Your task to perform on an android device: What's on my calendar tomorrow? Image 0: 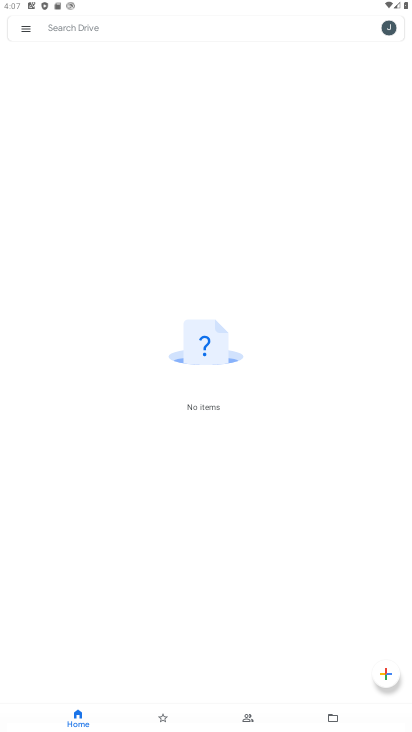
Step 0: press home button
Your task to perform on an android device: What's on my calendar tomorrow? Image 1: 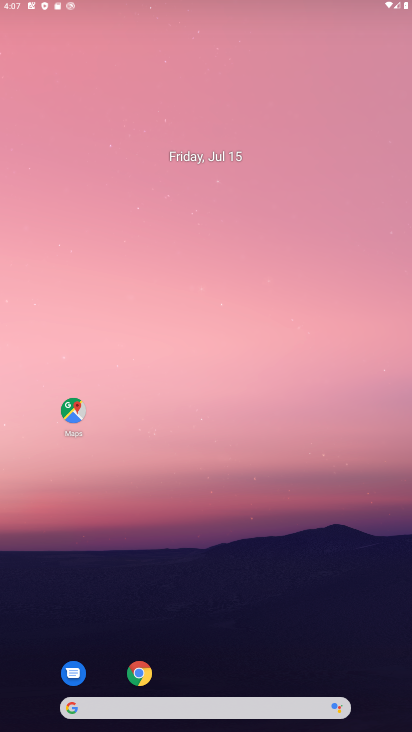
Step 1: drag from (238, 413) to (268, 313)
Your task to perform on an android device: What's on my calendar tomorrow? Image 2: 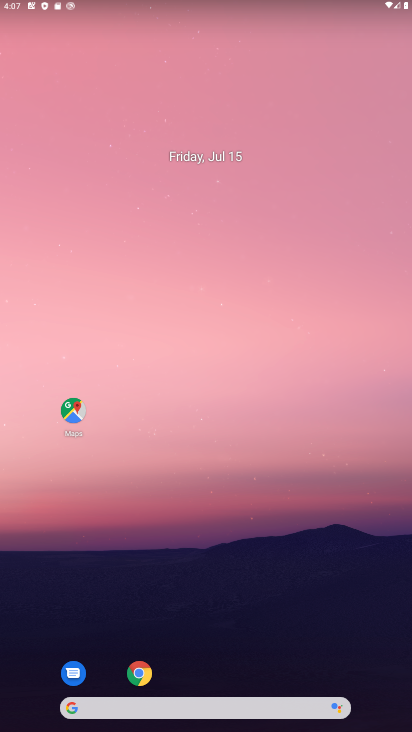
Step 2: drag from (235, 495) to (290, 197)
Your task to perform on an android device: What's on my calendar tomorrow? Image 3: 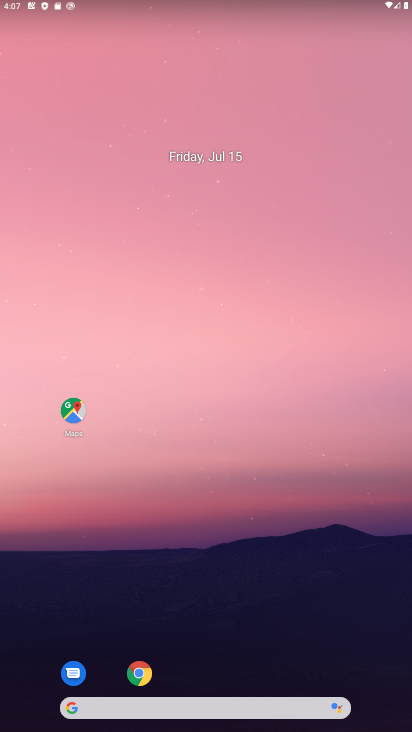
Step 3: drag from (180, 650) to (210, 273)
Your task to perform on an android device: What's on my calendar tomorrow? Image 4: 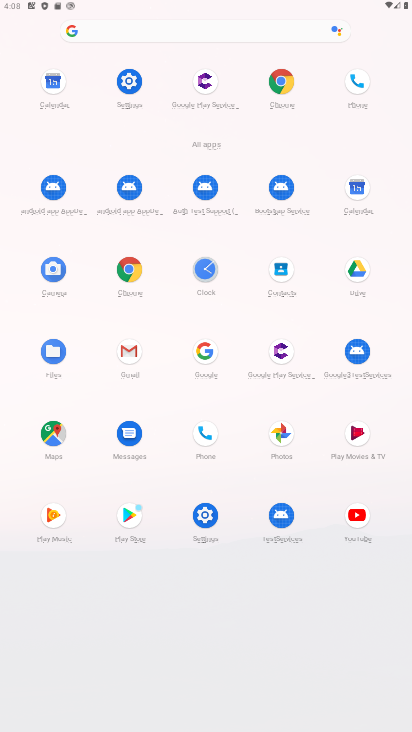
Step 4: click (356, 180)
Your task to perform on an android device: What's on my calendar tomorrow? Image 5: 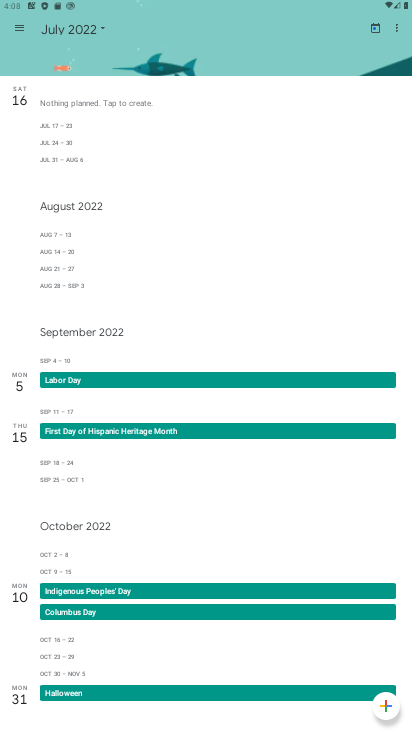
Step 5: task complete